Your task to perform on an android device: Is it going to rain tomorrow? Image 0: 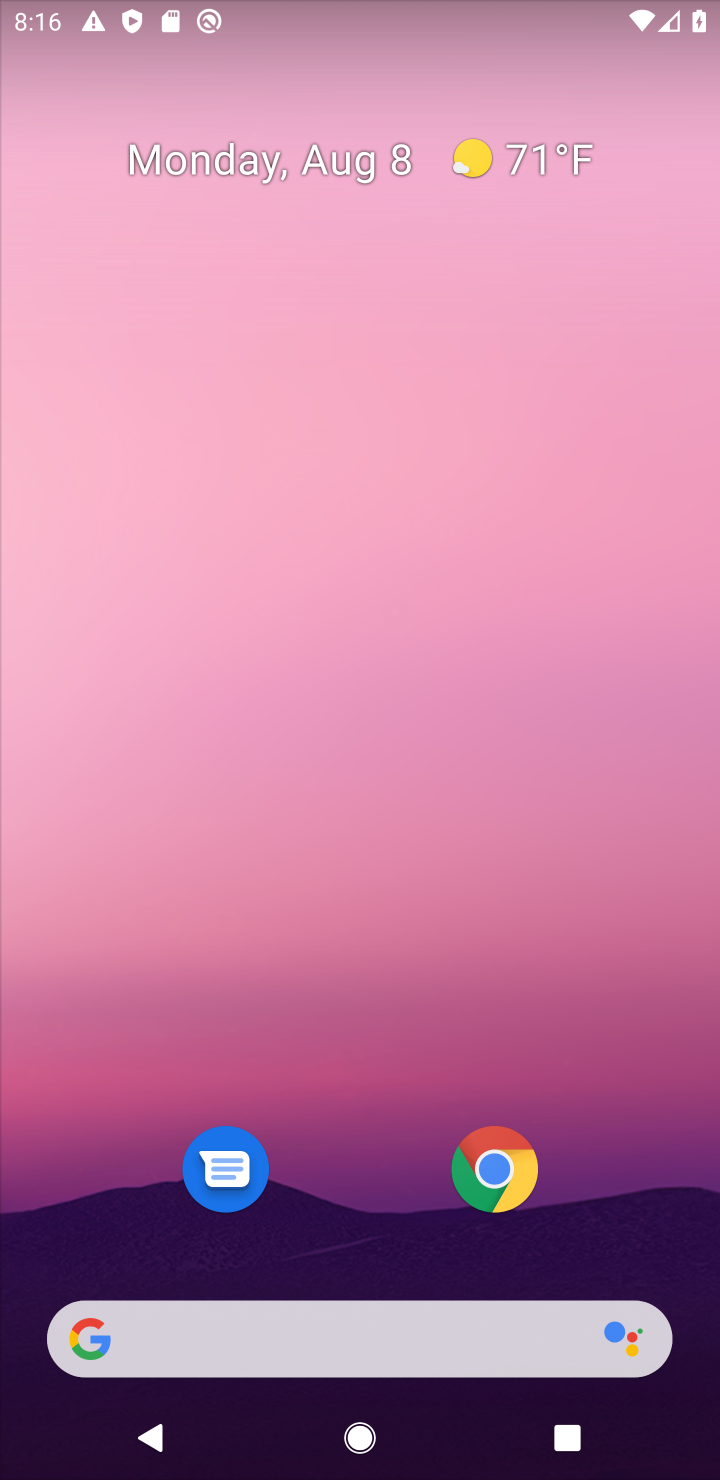
Step 0: click (335, 1363)
Your task to perform on an android device: Is it going to rain tomorrow? Image 1: 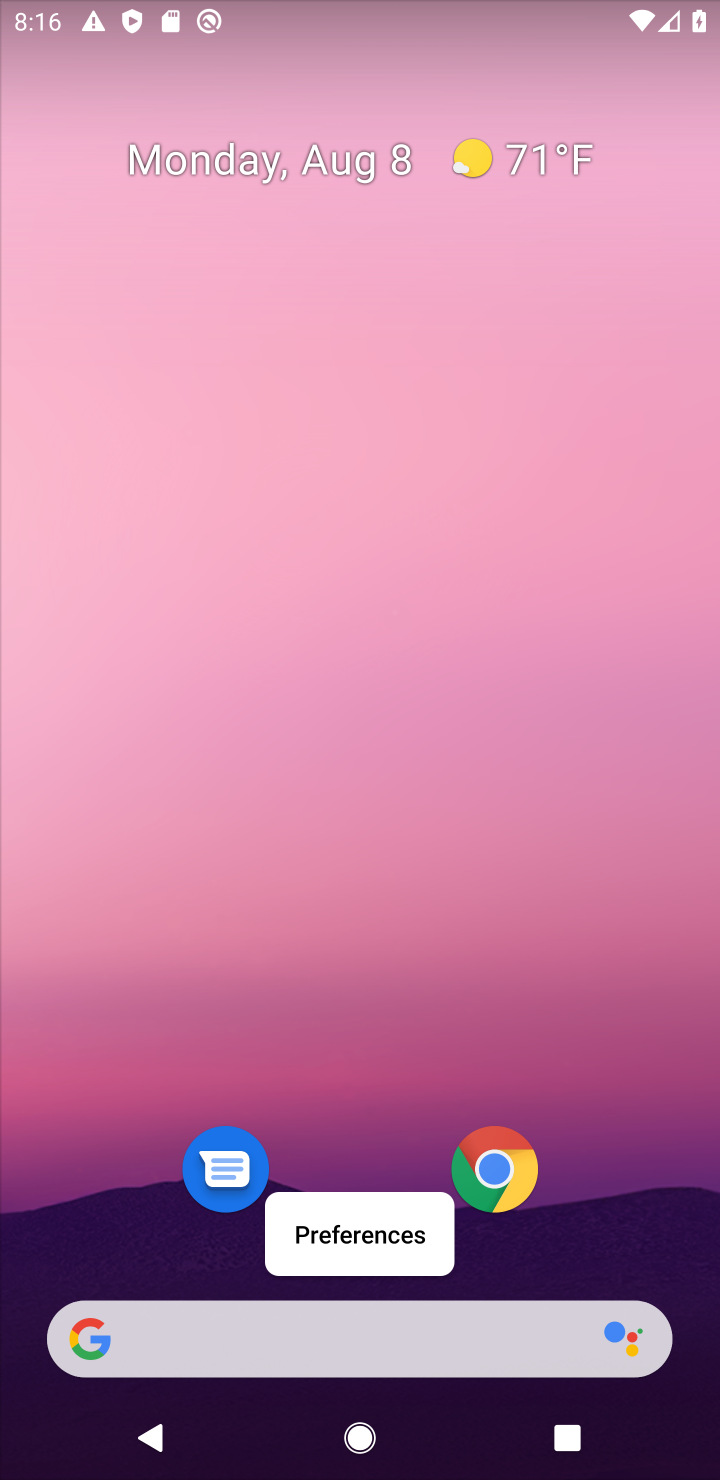
Step 1: click (292, 1319)
Your task to perform on an android device: Is it going to rain tomorrow? Image 2: 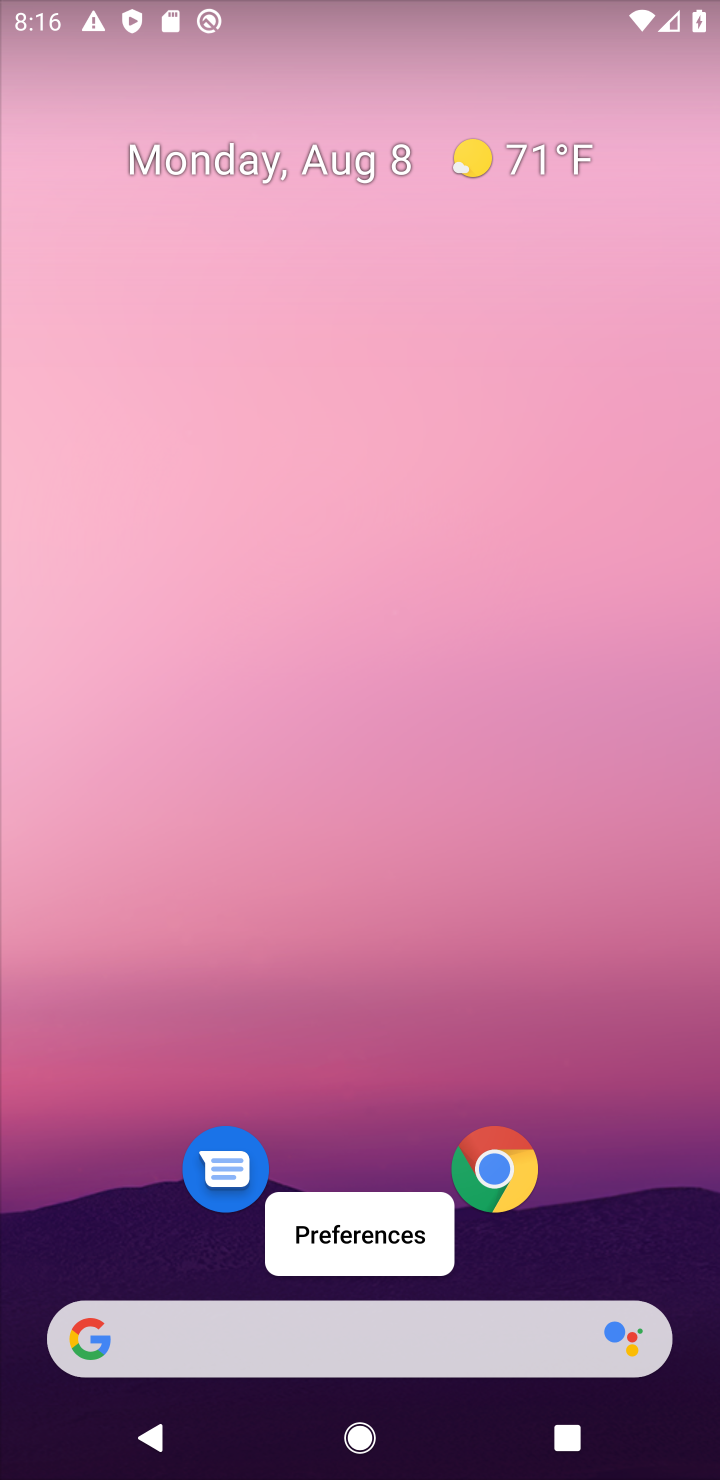
Step 2: click (298, 1353)
Your task to perform on an android device: Is it going to rain tomorrow? Image 3: 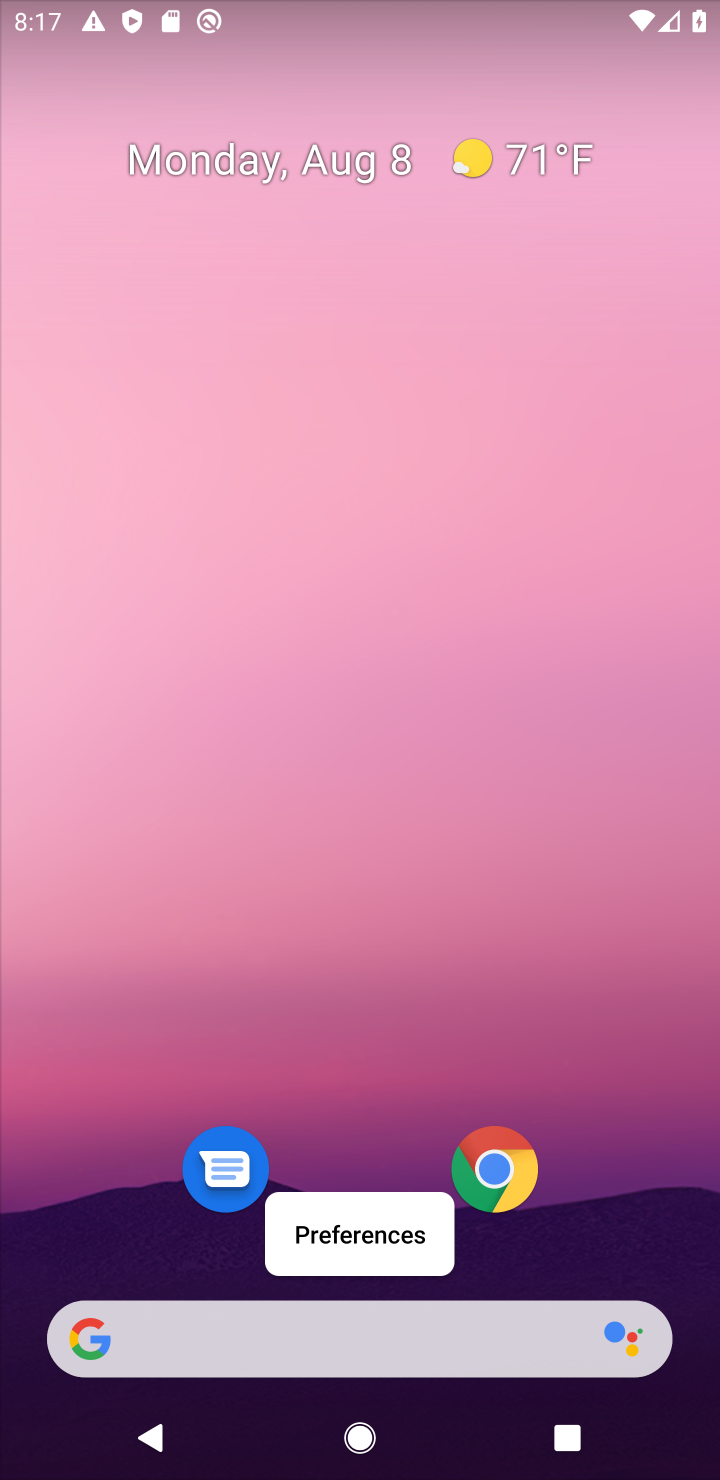
Step 3: click (322, 1316)
Your task to perform on an android device: Is it going to rain tomorrow? Image 4: 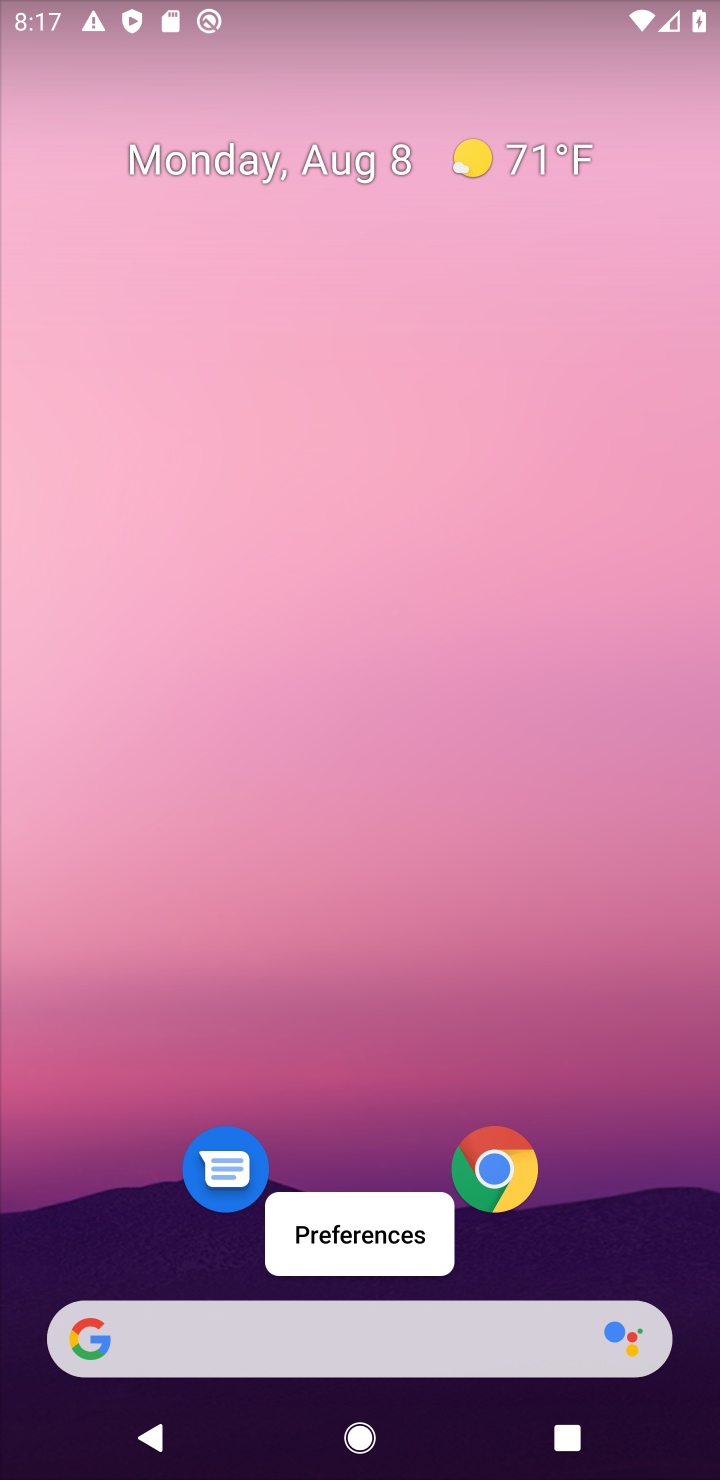
Step 4: click (310, 1329)
Your task to perform on an android device: Is it going to rain tomorrow? Image 5: 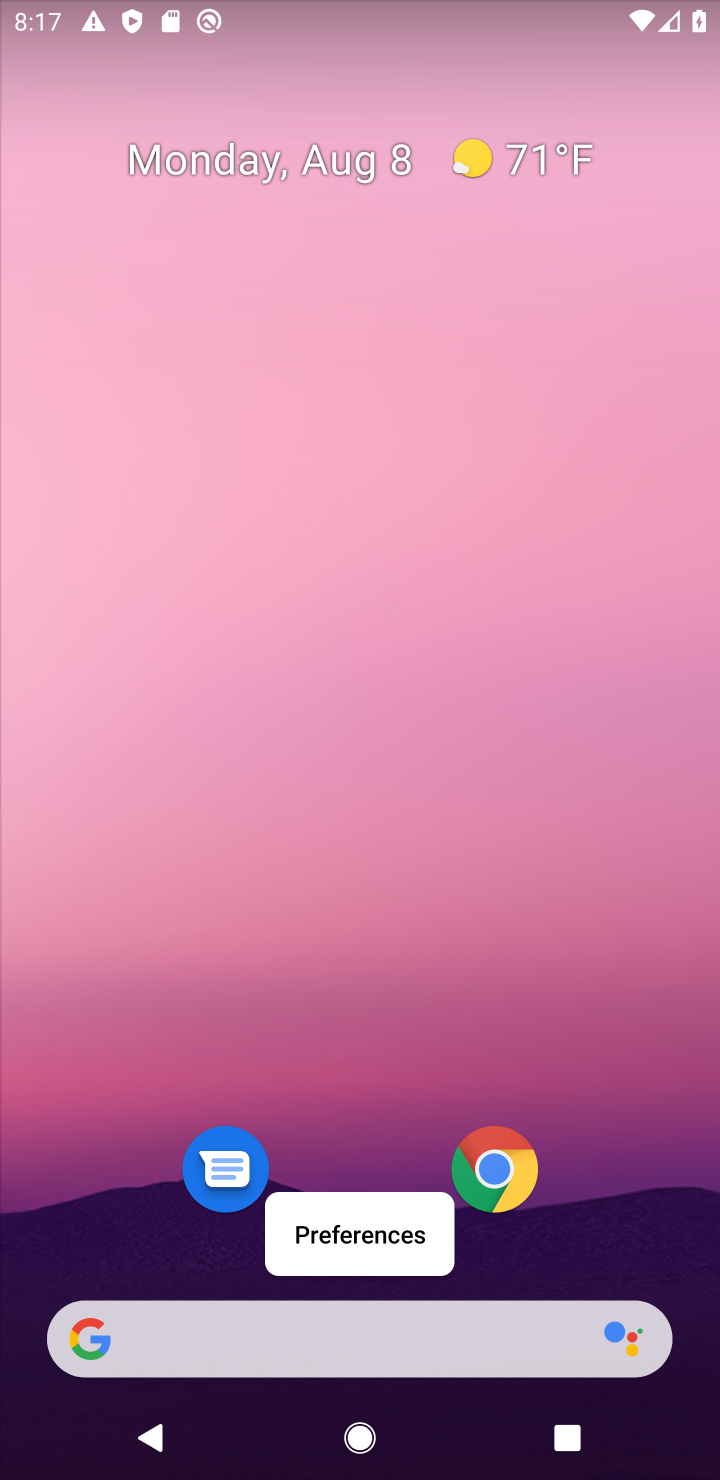
Step 5: click (306, 1333)
Your task to perform on an android device: Is it going to rain tomorrow? Image 6: 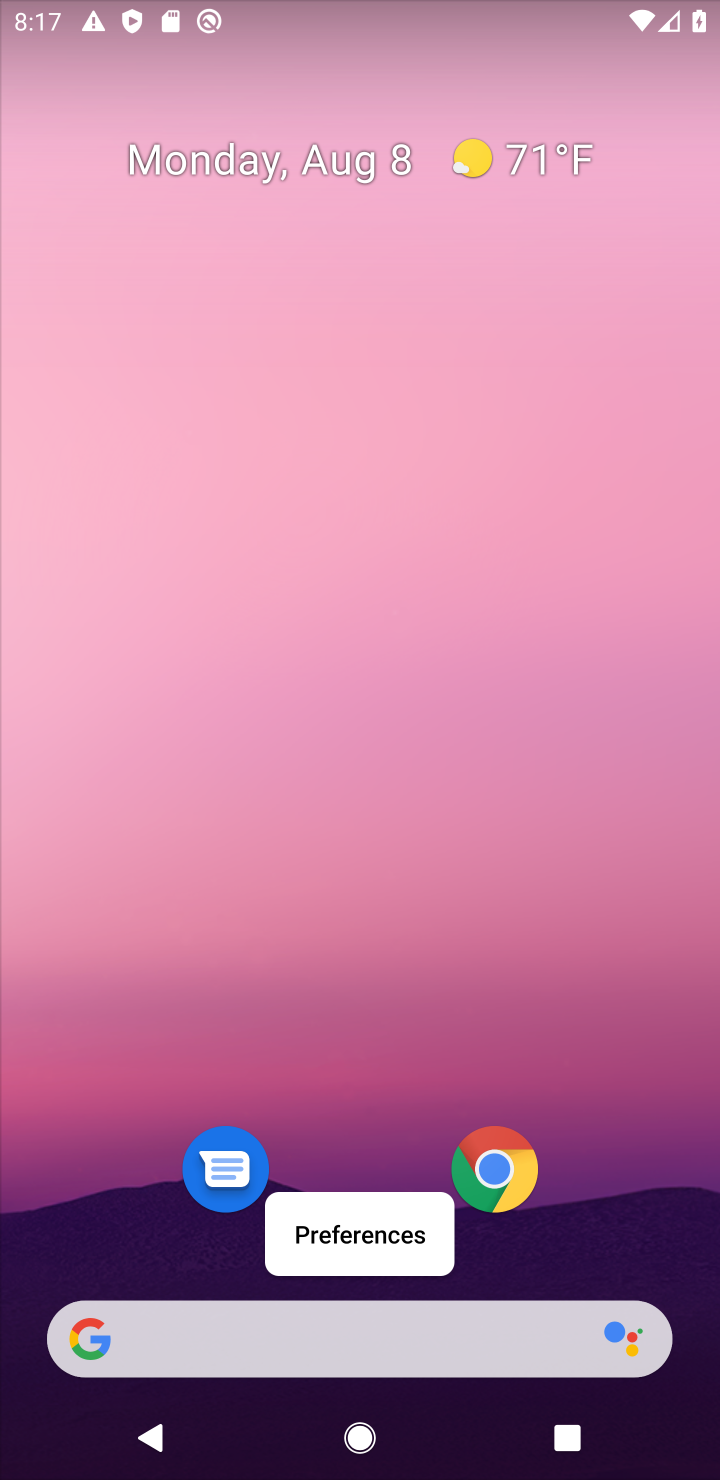
Step 6: click (187, 1344)
Your task to perform on an android device: Is it going to rain tomorrow? Image 7: 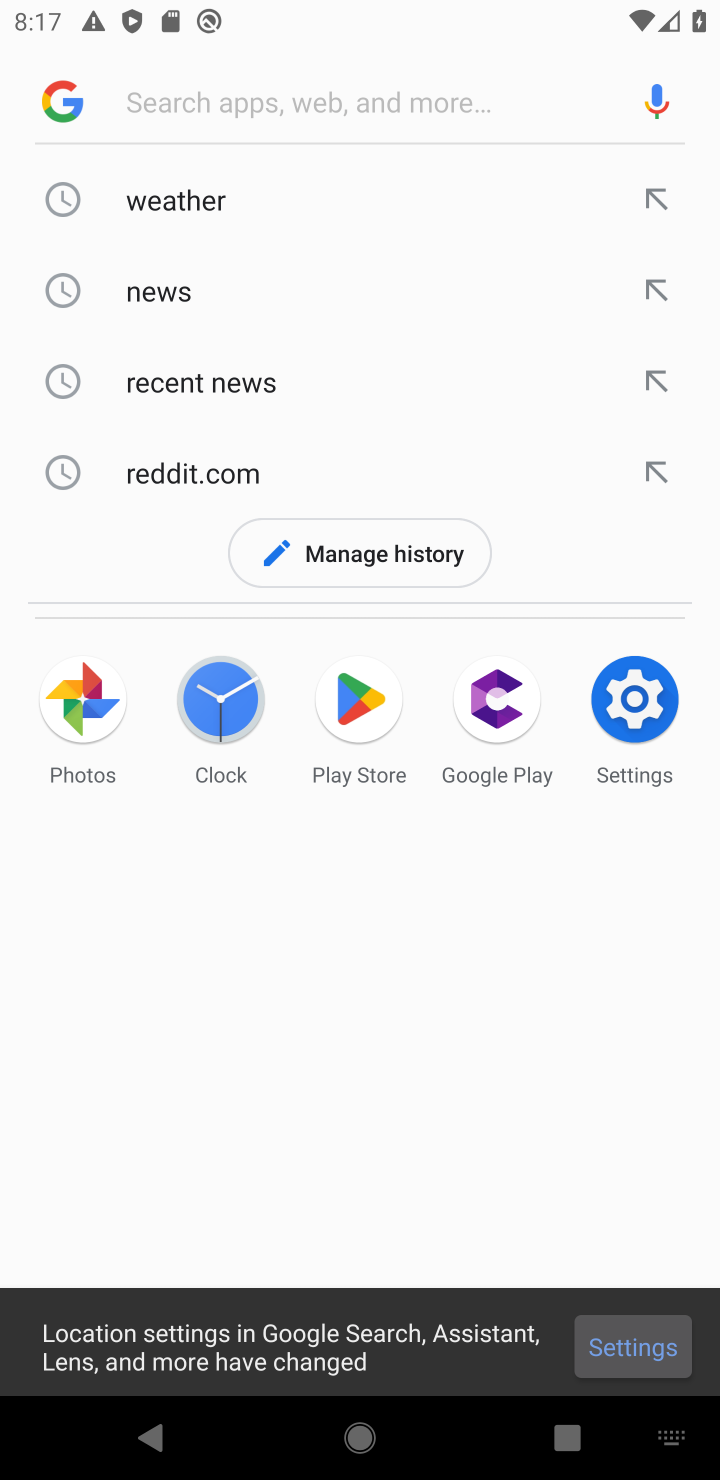
Step 7: click (182, 190)
Your task to perform on an android device: Is it going to rain tomorrow? Image 8: 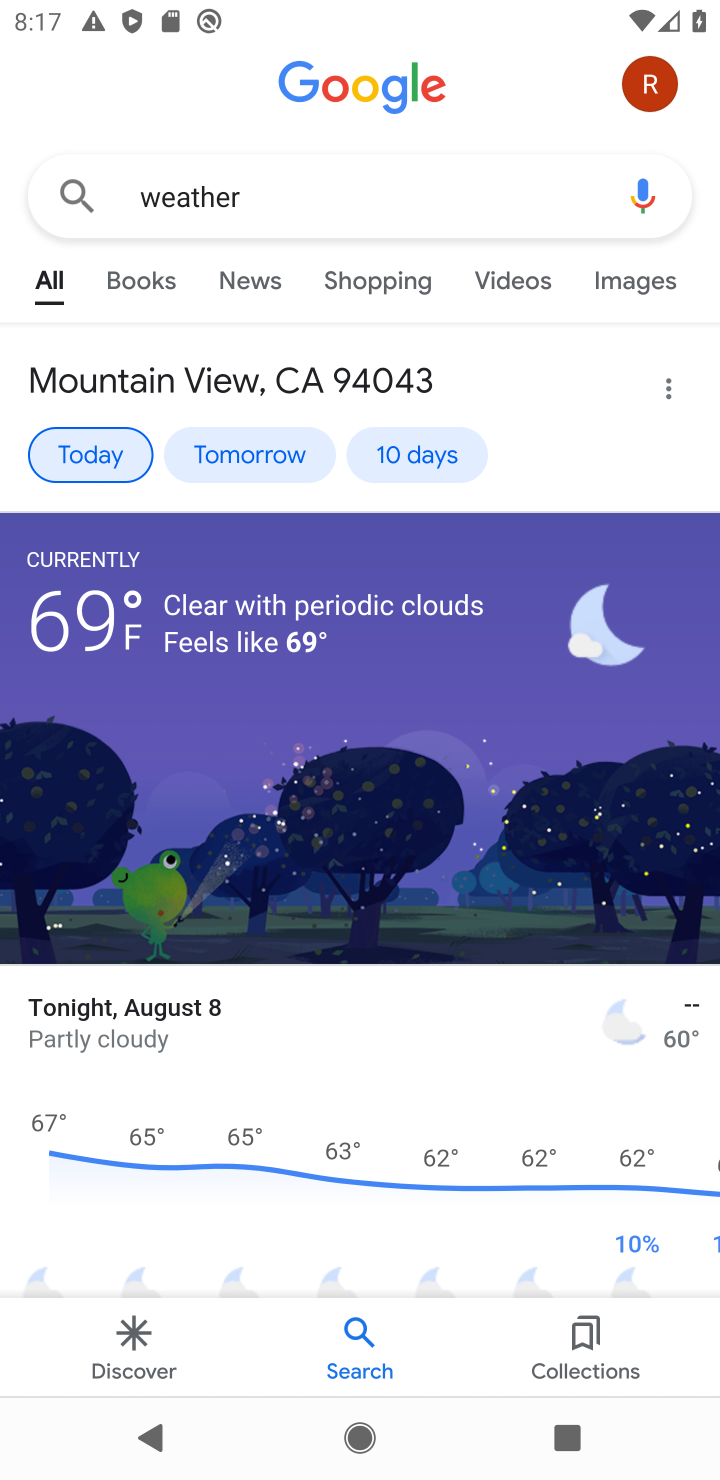
Step 8: click (249, 458)
Your task to perform on an android device: Is it going to rain tomorrow? Image 9: 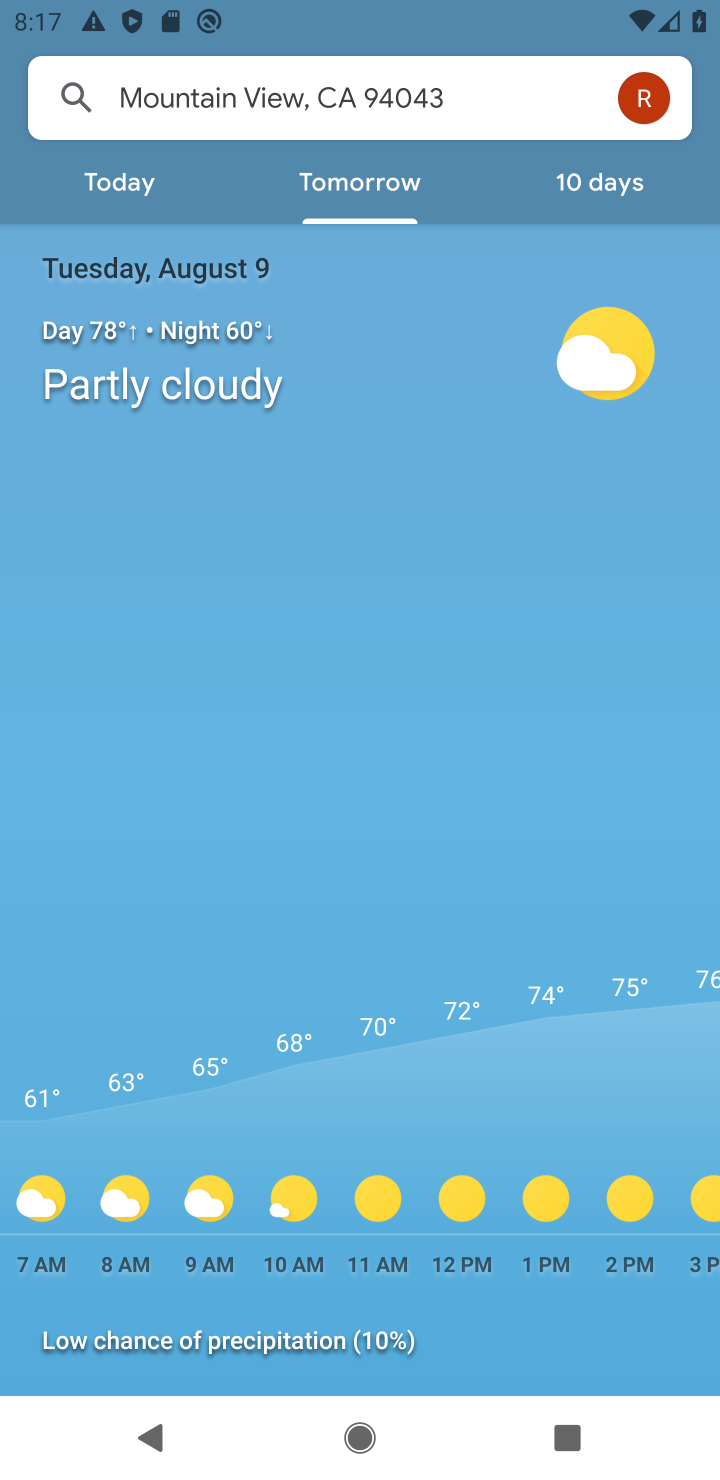
Step 9: task complete